Your task to perform on an android device: Go to calendar. Show me events next week Image 0: 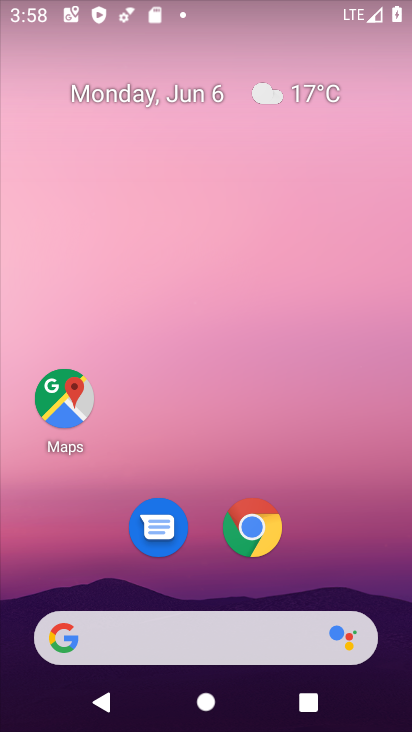
Step 0: drag from (144, 558) to (121, 319)
Your task to perform on an android device: Go to calendar. Show me events next week Image 1: 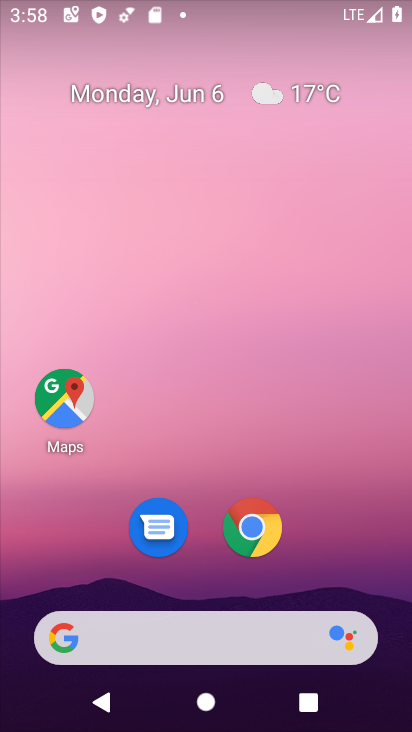
Step 1: drag from (229, 555) to (226, 238)
Your task to perform on an android device: Go to calendar. Show me events next week Image 2: 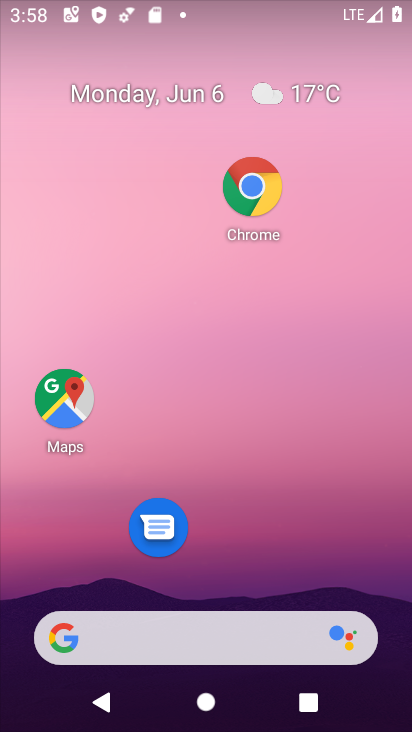
Step 2: drag from (243, 584) to (182, 164)
Your task to perform on an android device: Go to calendar. Show me events next week Image 3: 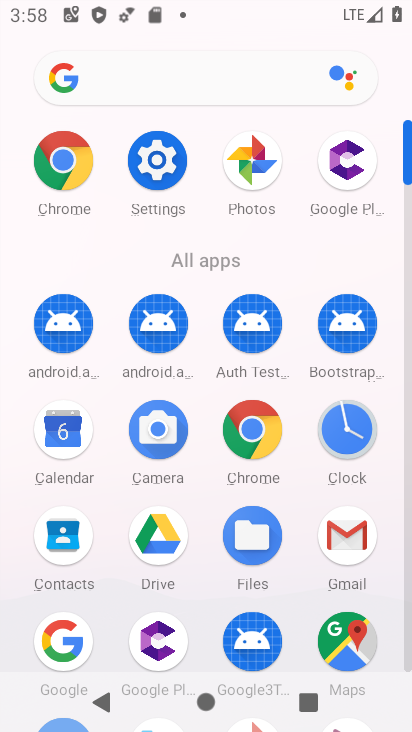
Step 3: click (80, 443)
Your task to perform on an android device: Go to calendar. Show me events next week Image 4: 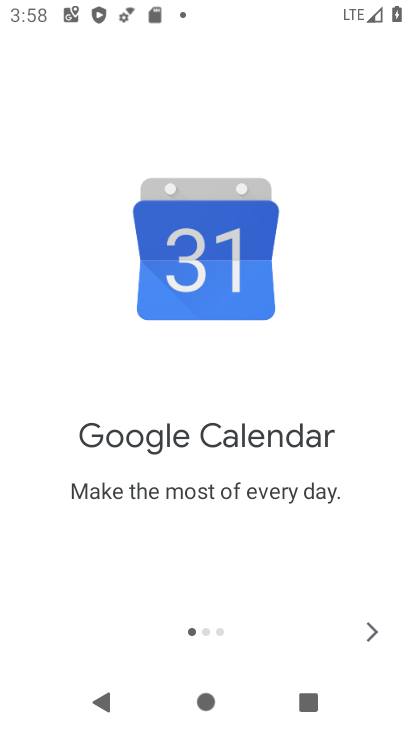
Step 4: click (374, 632)
Your task to perform on an android device: Go to calendar. Show me events next week Image 5: 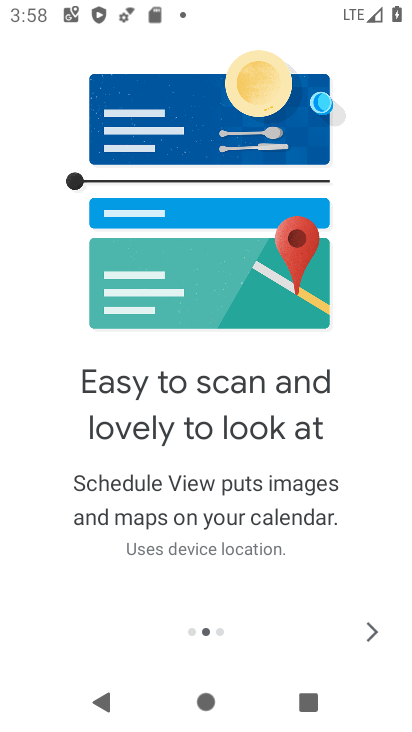
Step 5: click (374, 632)
Your task to perform on an android device: Go to calendar. Show me events next week Image 6: 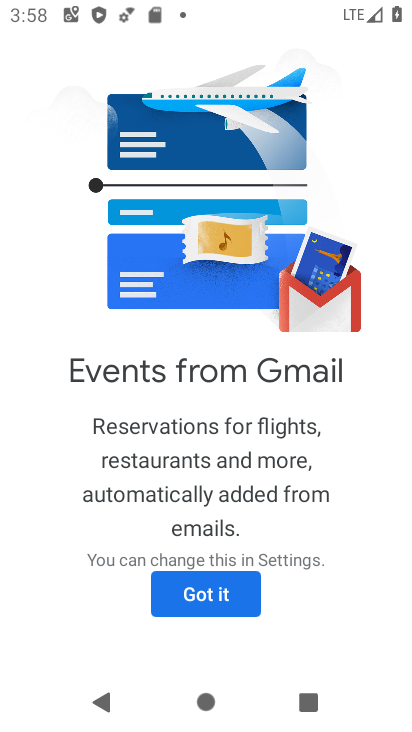
Step 6: click (163, 596)
Your task to perform on an android device: Go to calendar. Show me events next week Image 7: 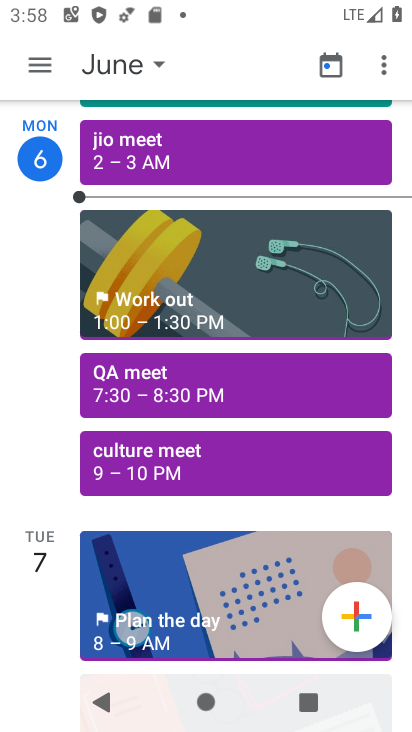
Step 7: click (110, 63)
Your task to perform on an android device: Go to calendar. Show me events next week Image 8: 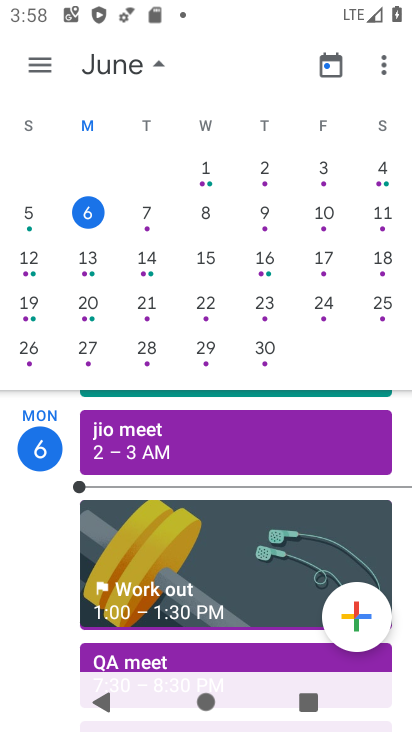
Step 8: click (32, 265)
Your task to perform on an android device: Go to calendar. Show me events next week Image 9: 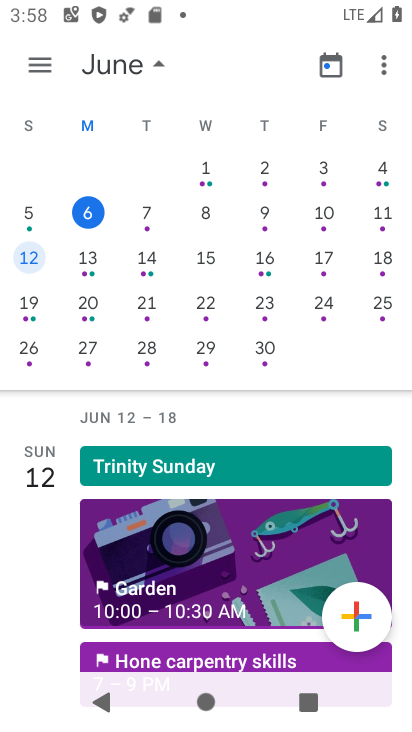
Step 9: task complete